Your task to perform on an android device: Turn off the flashlight Image 0: 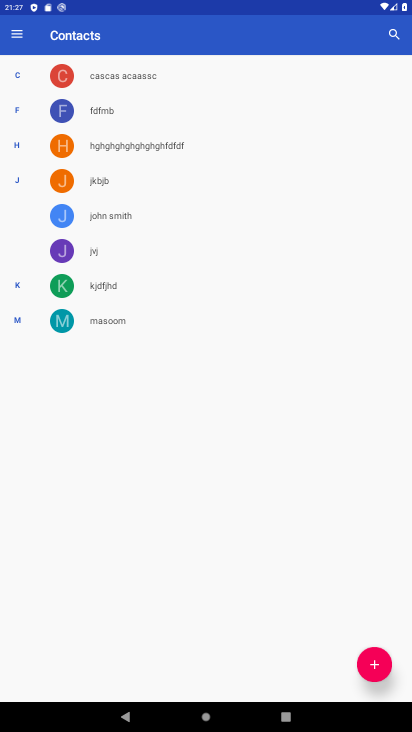
Step 0: drag from (291, 3) to (270, 668)
Your task to perform on an android device: Turn off the flashlight Image 1: 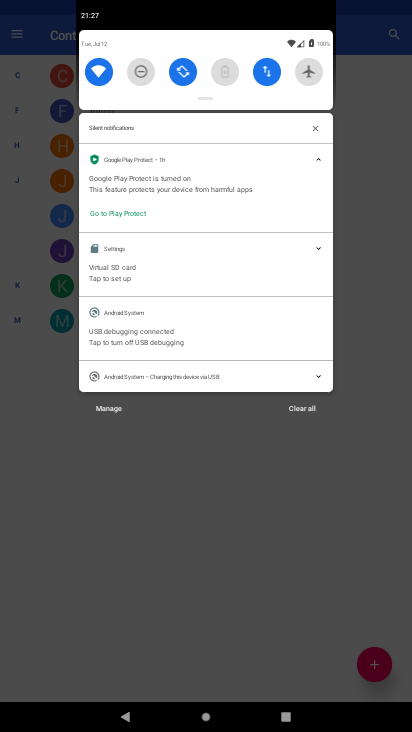
Step 1: task complete